Your task to perform on an android device: turn on translation in the chrome app Image 0: 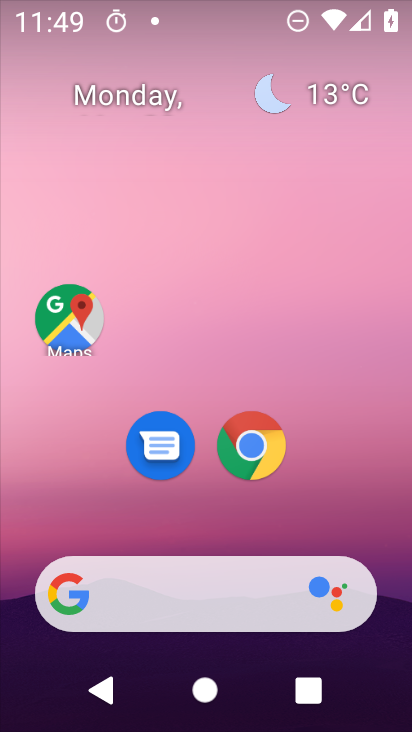
Step 0: click (262, 443)
Your task to perform on an android device: turn on translation in the chrome app Image 1: 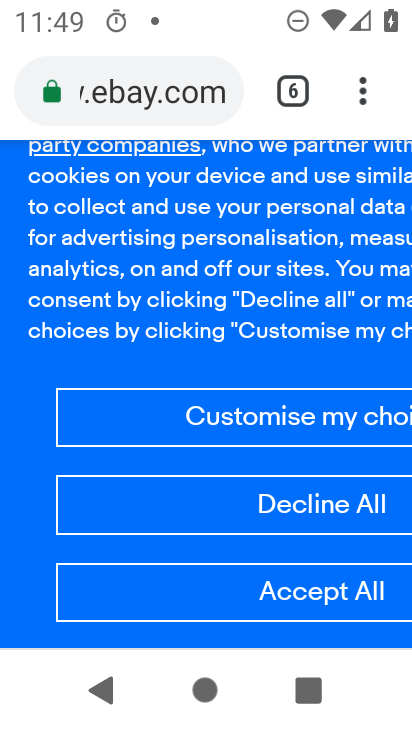
Step 1: drag from (356, 83) to (123, 451)
Your task to perform on an android device: turn on translation in the chrome app Image 2: 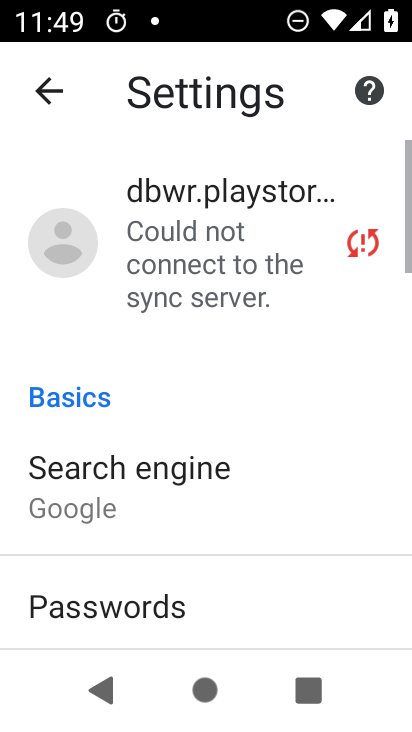
Step 2: drag from (127, 568) to (258, 137)
Your task to perform on an android device: turn on translation in the chrome app Image 3: 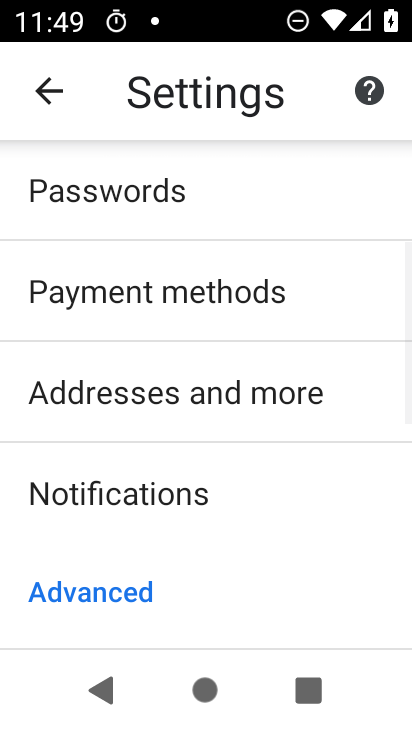
Step 3: drag from (179, 571) to (264, 144)
Your task to perform on an android device: turn on translation in the chrome app Image 4: 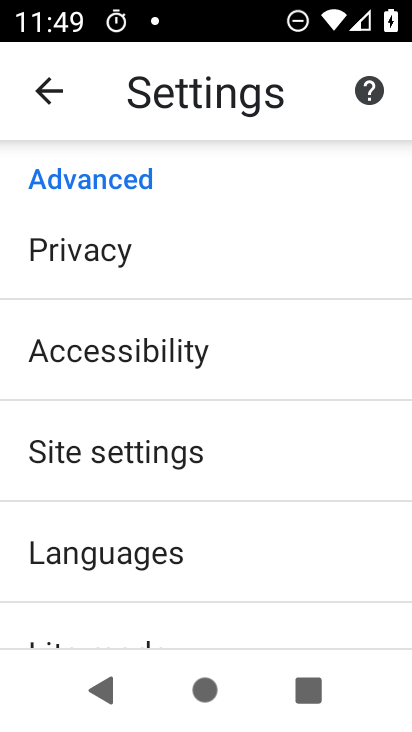
Step 4: click (129, 570)
Your task to perform on an android device: turn on translation in the chrome app Image 5: 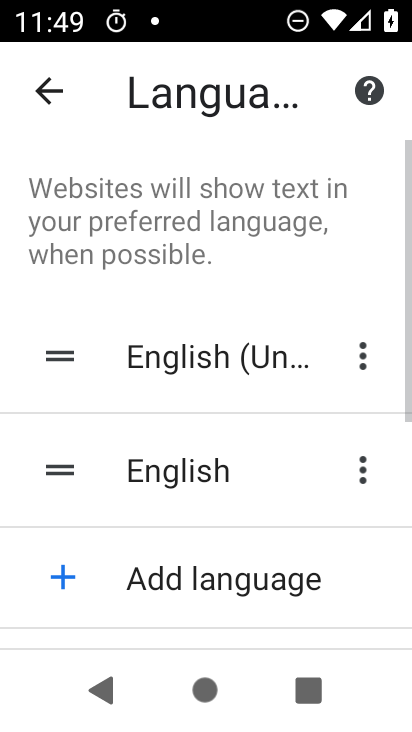
Step 5: drag from (166, 560) to (236, 120)
Your task to perform on an android device: turn on translation in the chrome app Image 6: 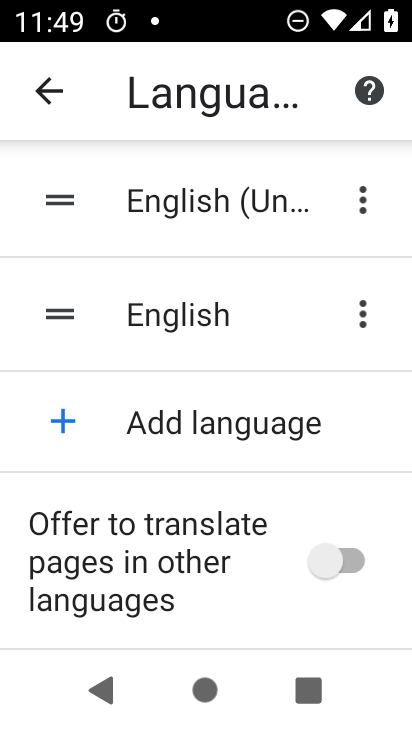
Step 6: click (332, 559)
Your task to perform on an android device: turn on translation in the chrome app Image 7: 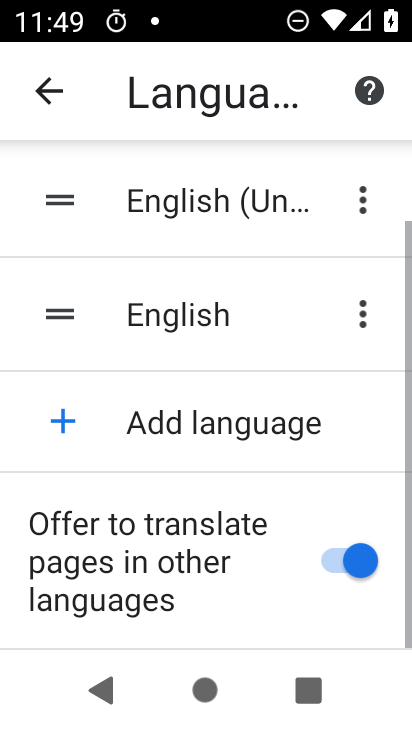
Step 7: task complete